Your task to perform on an android device: open sync settings in chrome Image 0: 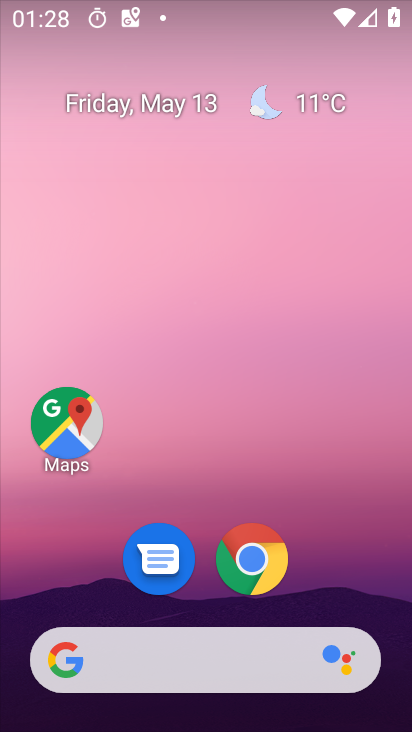
Step 0: click (256, 558)
Your task to perform on an android device: open sync settings in chrome Image 1: 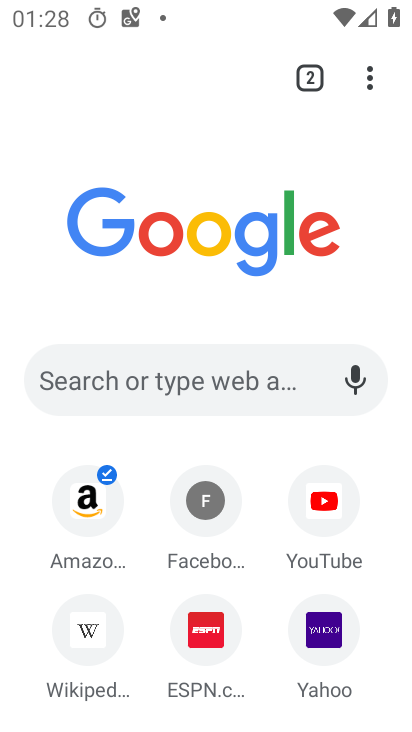
Step 1: click (363, 87)
Your task to perform on an android device: open sync settings in chrome Image 2: 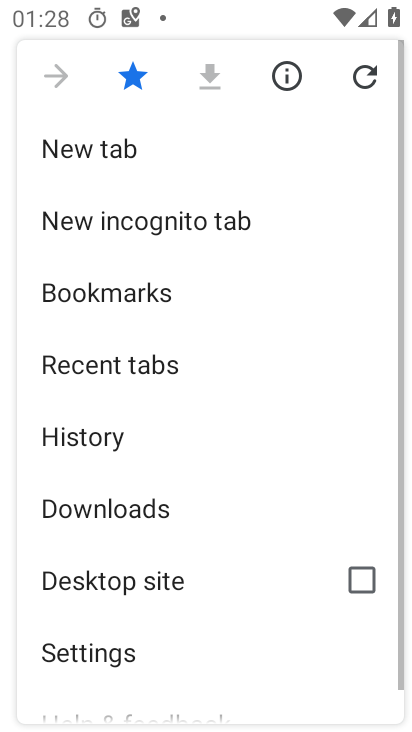
Step 2: drag from (226, 577) to (229, 294)
Your task to perform on an android device: open sync settings in chrome Image 3: 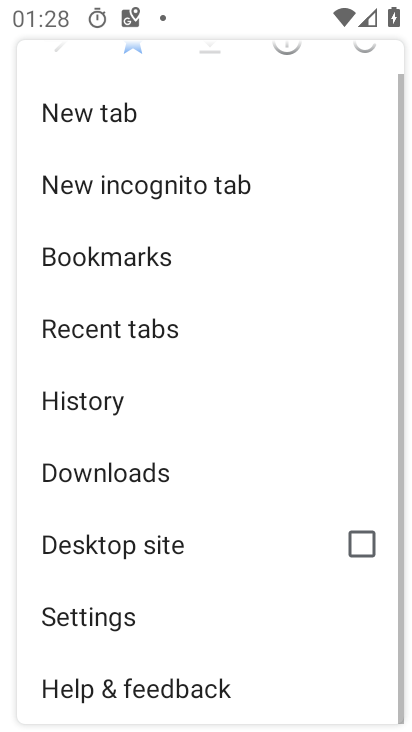
Step 3: click (155, 598)
Your task to perform on an android device: open sync settings in chrome Image 4: 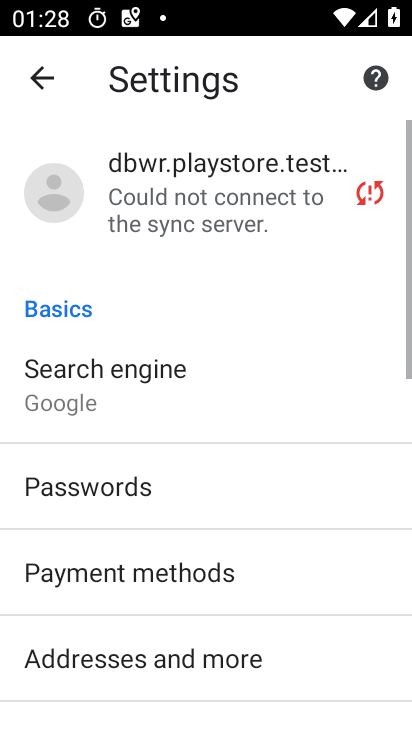
Step 4: drag from (230, 568) to (265, 70)
Your task to perform on an android device: open sync settings in chrome Image 5: 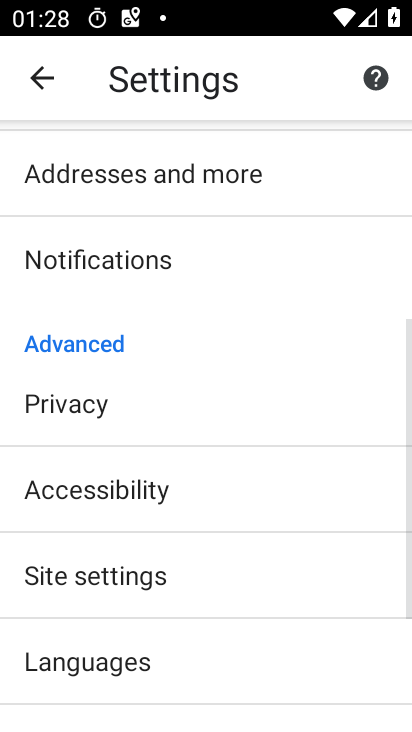
Step 5: drag from (217, 623) to (282, 228)
Your task to perform on an android device: open sync settings in chrome Image 6: 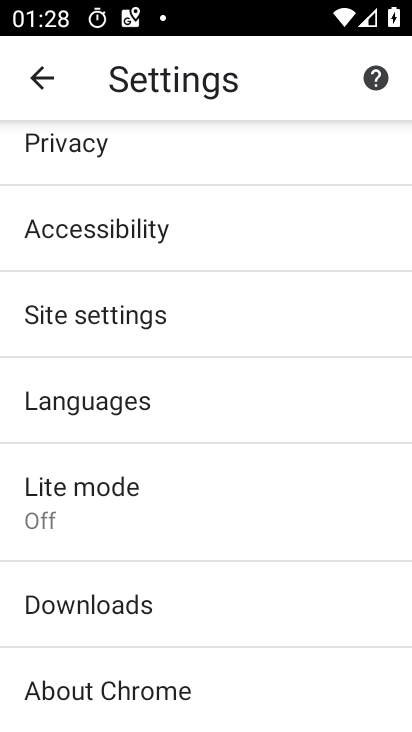
Step 6: click (97, 293)
Your task to perform on an android device: open sync settings in chrome Image 7: 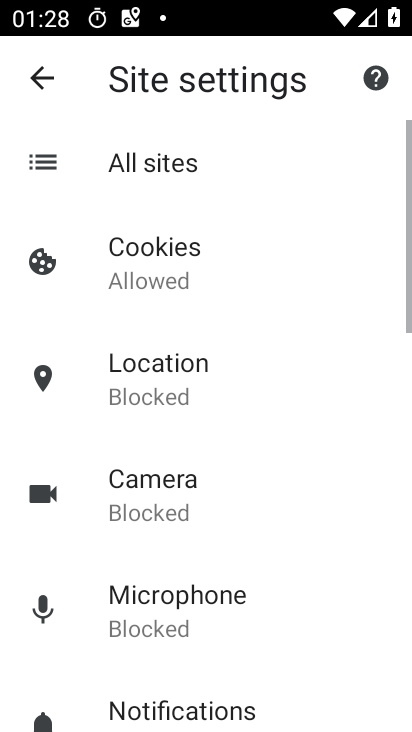
Step 7: drag from (240, 590) to (293, 102)
Your task to perform on an android device: open sync settings in chrome Image 8: 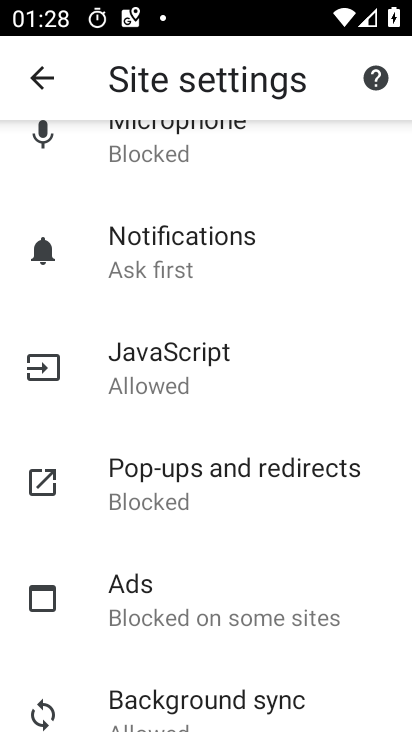
Step 8: drag from (182, 462) to (176, 228)
Your task to perform on an android device: open sync settings in chrome Image 9: 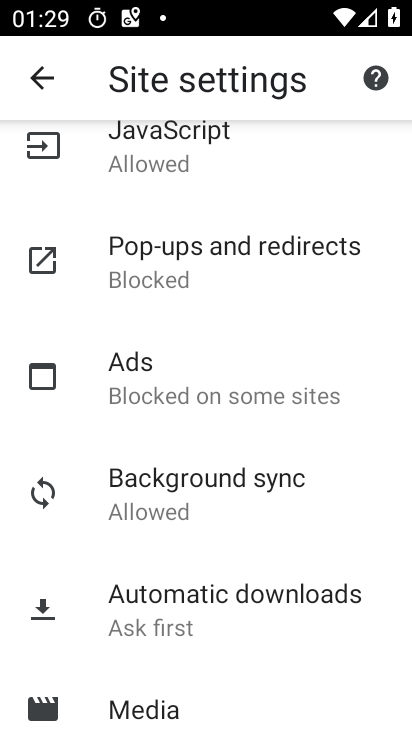
Step 9: click (170, 505)
Your task to perform on an android device: open sync settings in chrome Image 10: 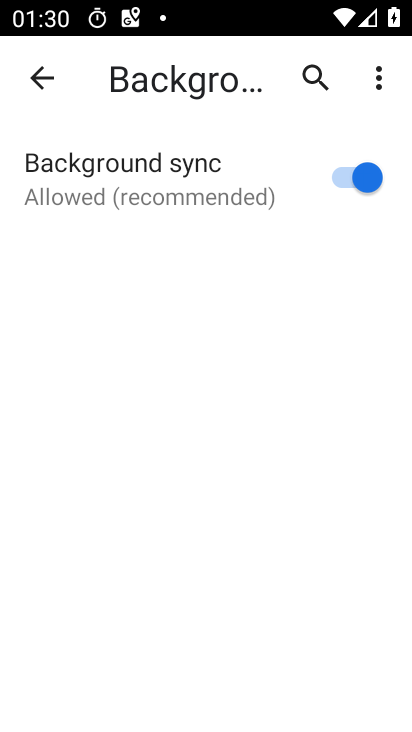
Step 10: task complete